Your task to perform on an android device: set default search engine in the chrome app Image 0: 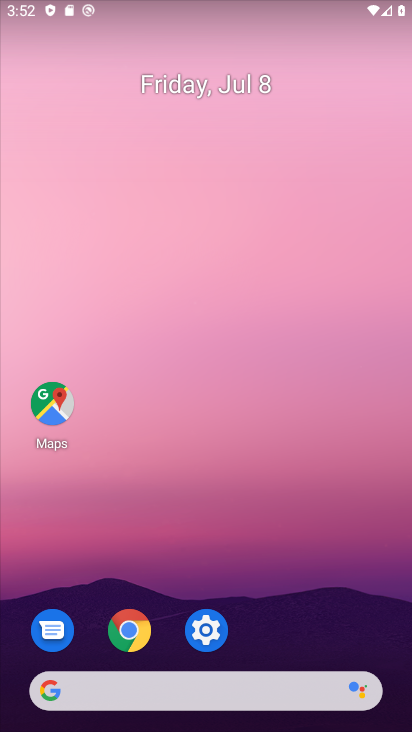
Step 0: click (54, 397)
Your task to perform on an android device: set default search engine in the chrome app Image 1: 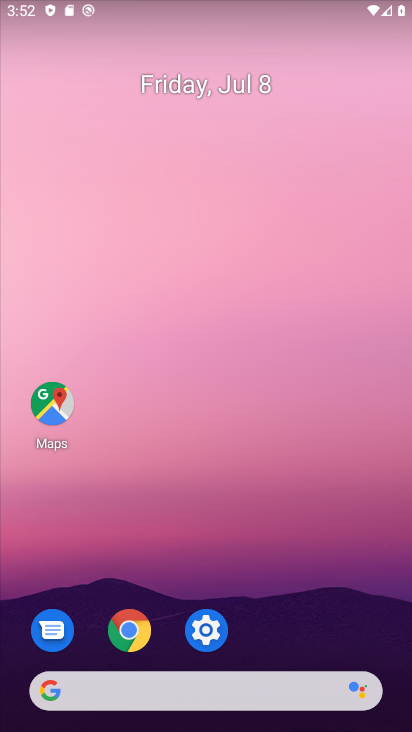
Step 1: click (54, 397)
Your task to perform on an android device: set default search engine in the chrome app Image 2: 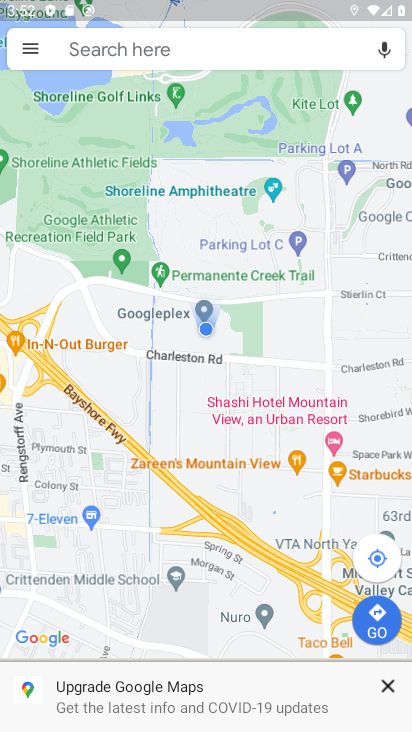
Step 2: press home button
Your task to perform on an android device: set default search engine in the chrome app Image 3: 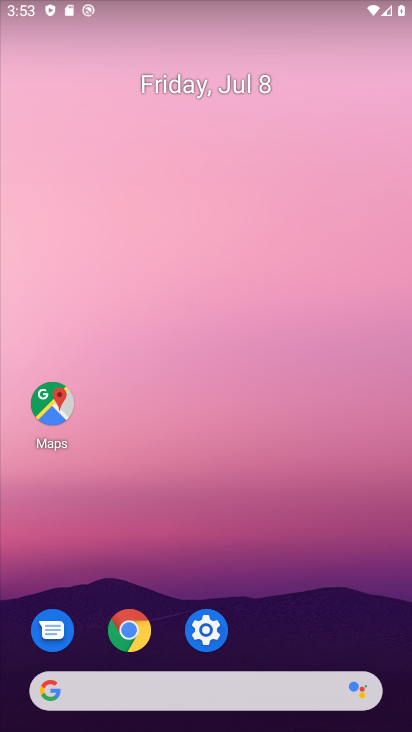
Step 3: click (130, 624)
Your task to perform on an android device: set default search engine in the chrome app Image 4: 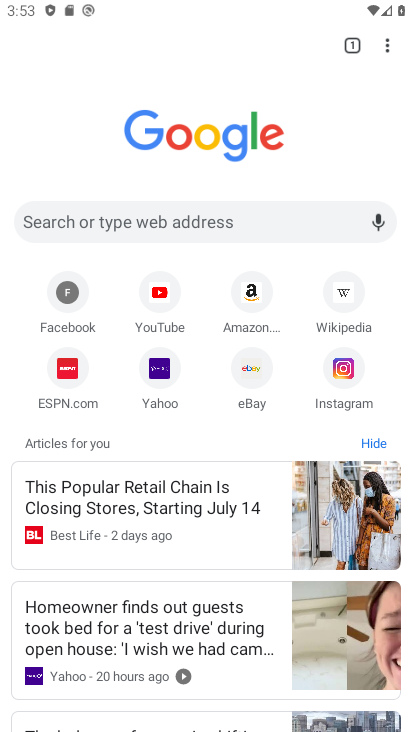
Step 4: click (386, 44)
Your task to perform on an android device: set default search engine in the chrome app Image 5: 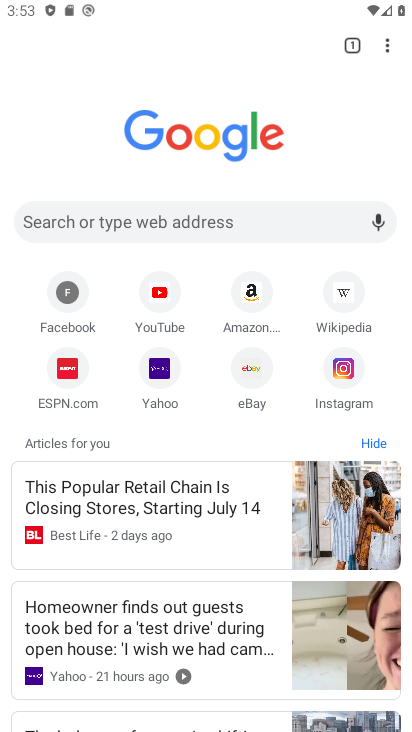
Step 5: click (392, 34)
Your task to perform on an android device: set default search engine in the chrome app Image 6: 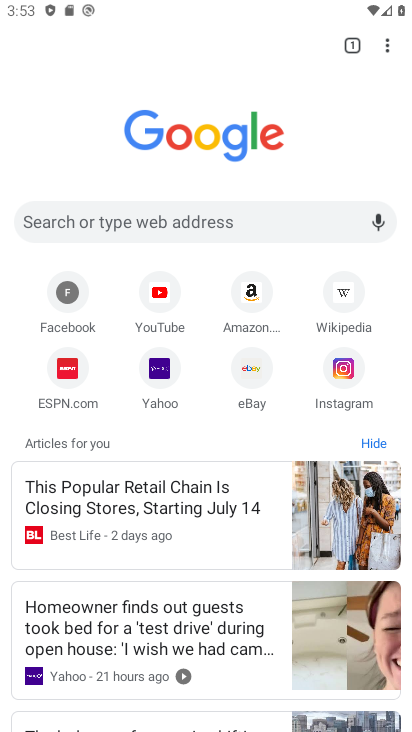
Step 6: click (390, 37)
Your task to perform on an android device: set default search engine in the chrome app Image 7: 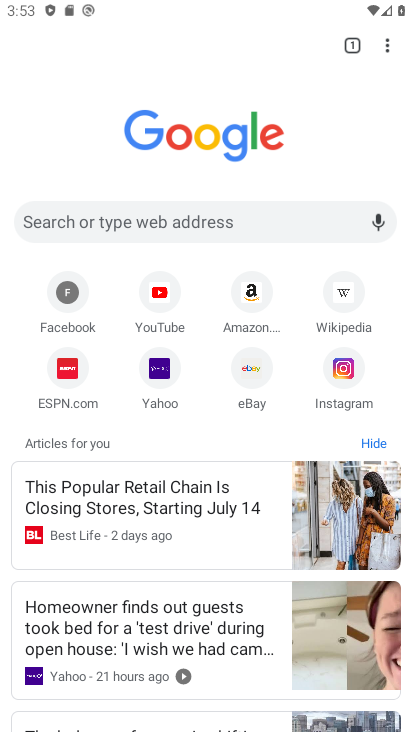
Step 7: click (374, 41)
Your task to perform on an android device: set default search engine in the chrome app Image 8: 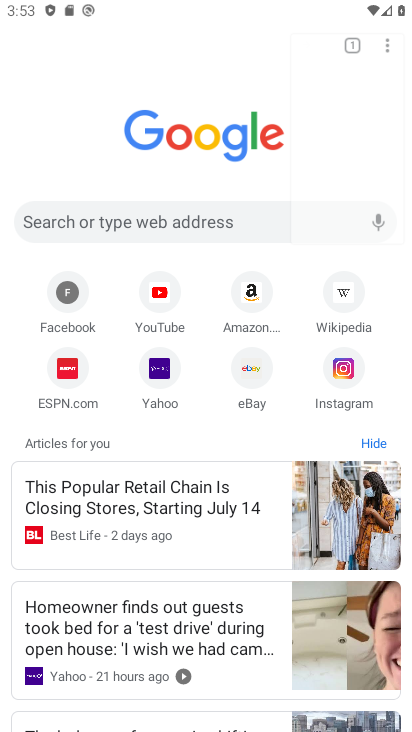
Step 8: click (383, 40)
Your task to perform on an android device: set default search engine in the chrome app Image 9: 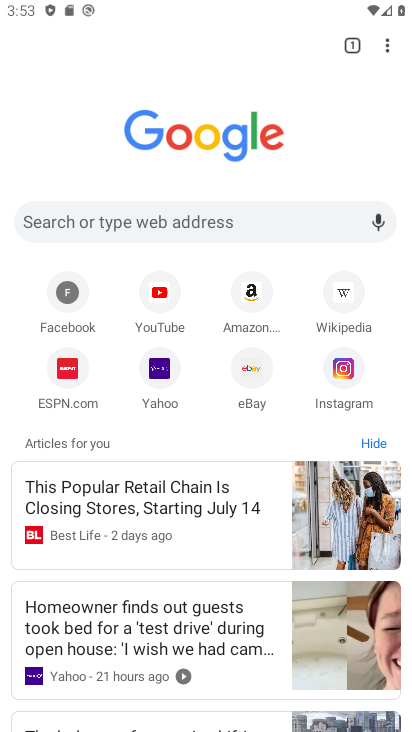
Step 9: click (387, 40)
Your task to perform on an android device: set default search engine in the chrome app Image 10: 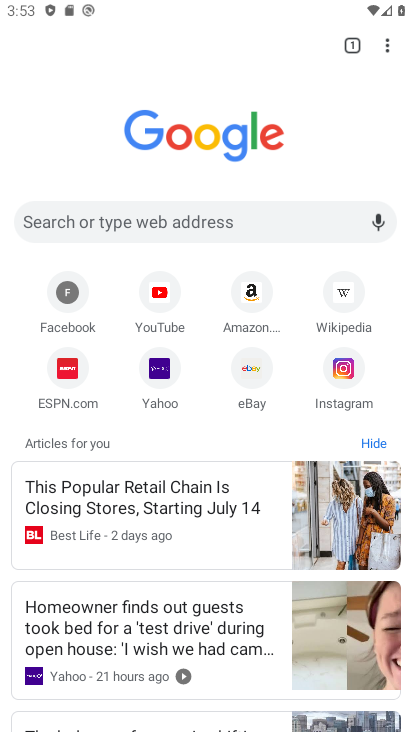
Step 10: task complete